Your task to perform on an android device: uninstall "Adobe Acrobat Reader: Edit PDF" Image 0: 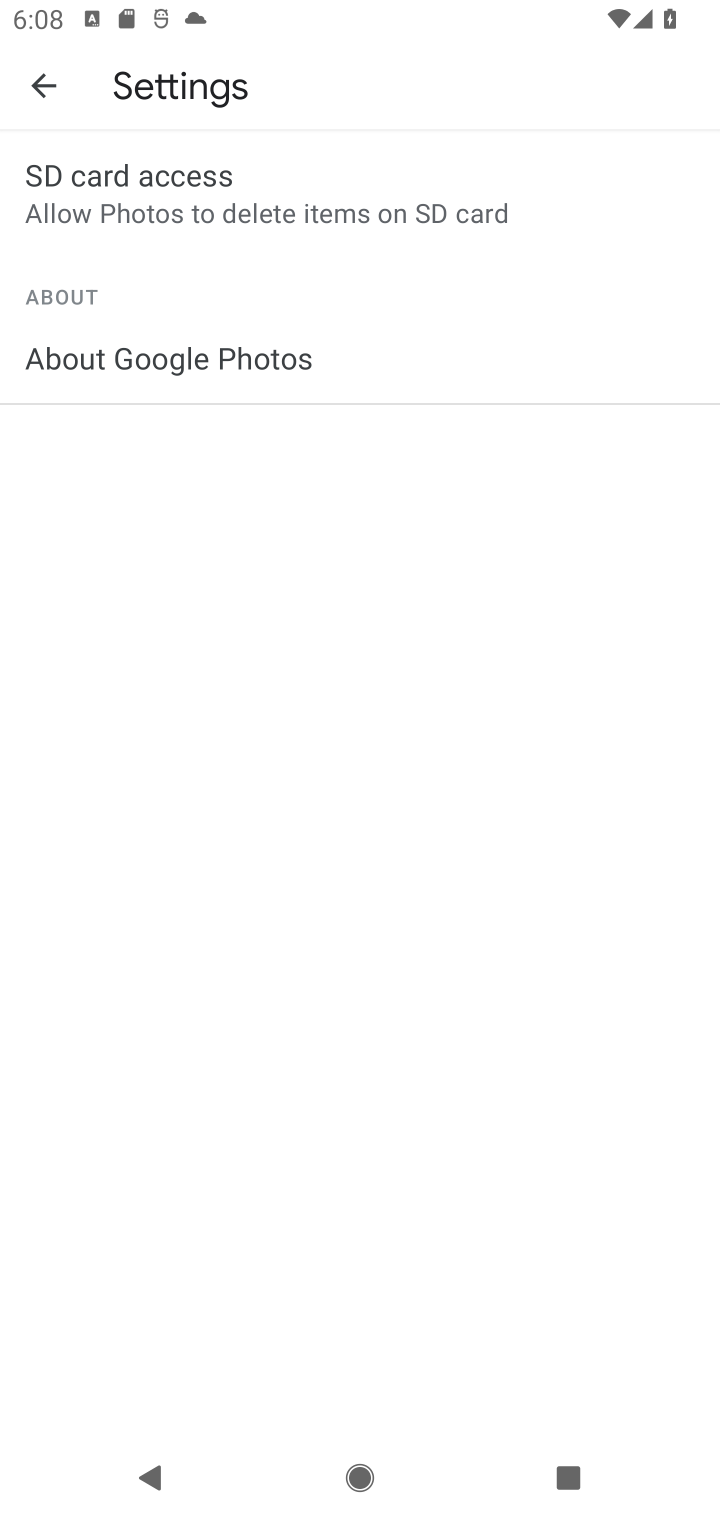
Step 0: press home button
Your task to perform on an android device: uninstall "Adobe Acrobat Reader: Edit PDF" Image 1: 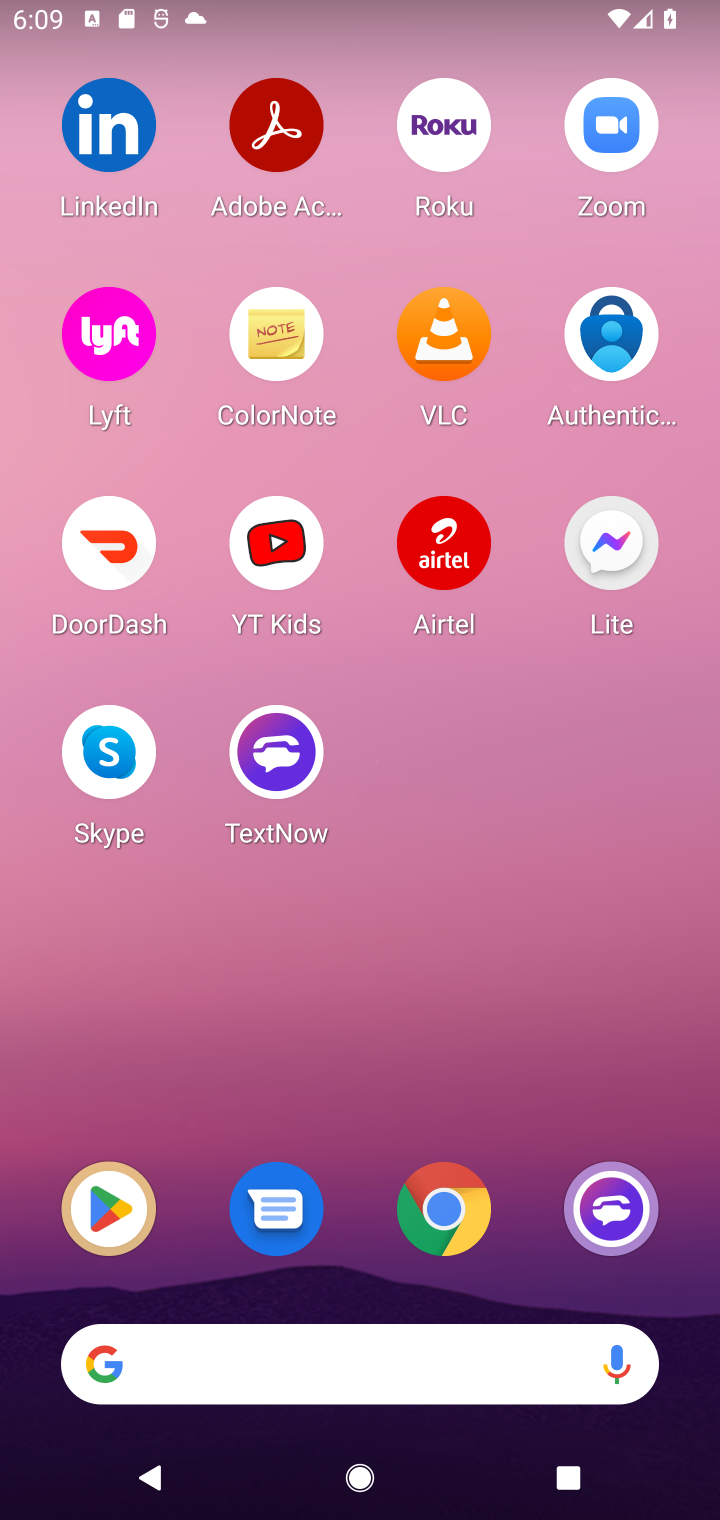
Step 1: click (261, 149)
Your task to perform on an android device: uninstall "Adobe Acrobat Reader: Edit PDF" Image 2: 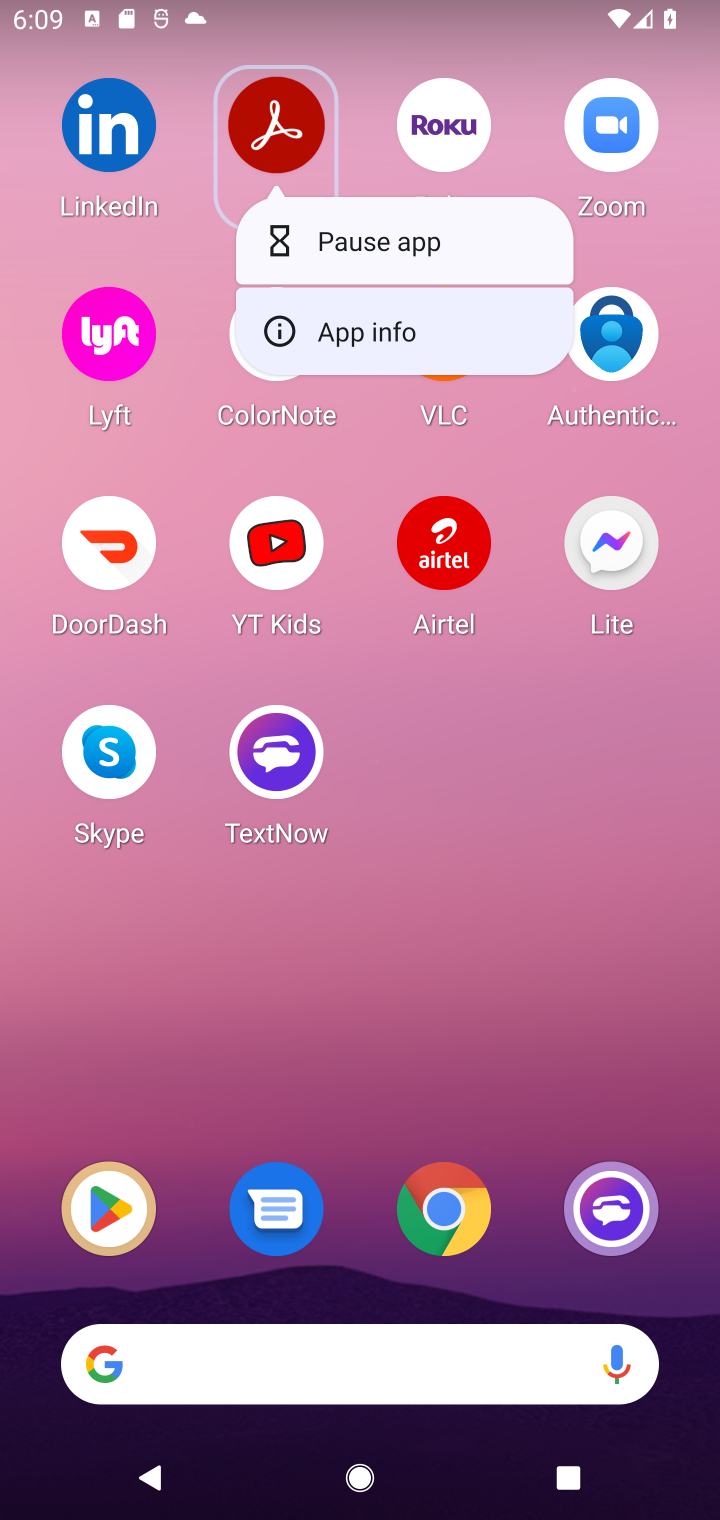
Step 2: click (314, 325)
Your task to perform on an android device: uninstall "Adobe Acrobat Reader: Edit PDF" Image 3: 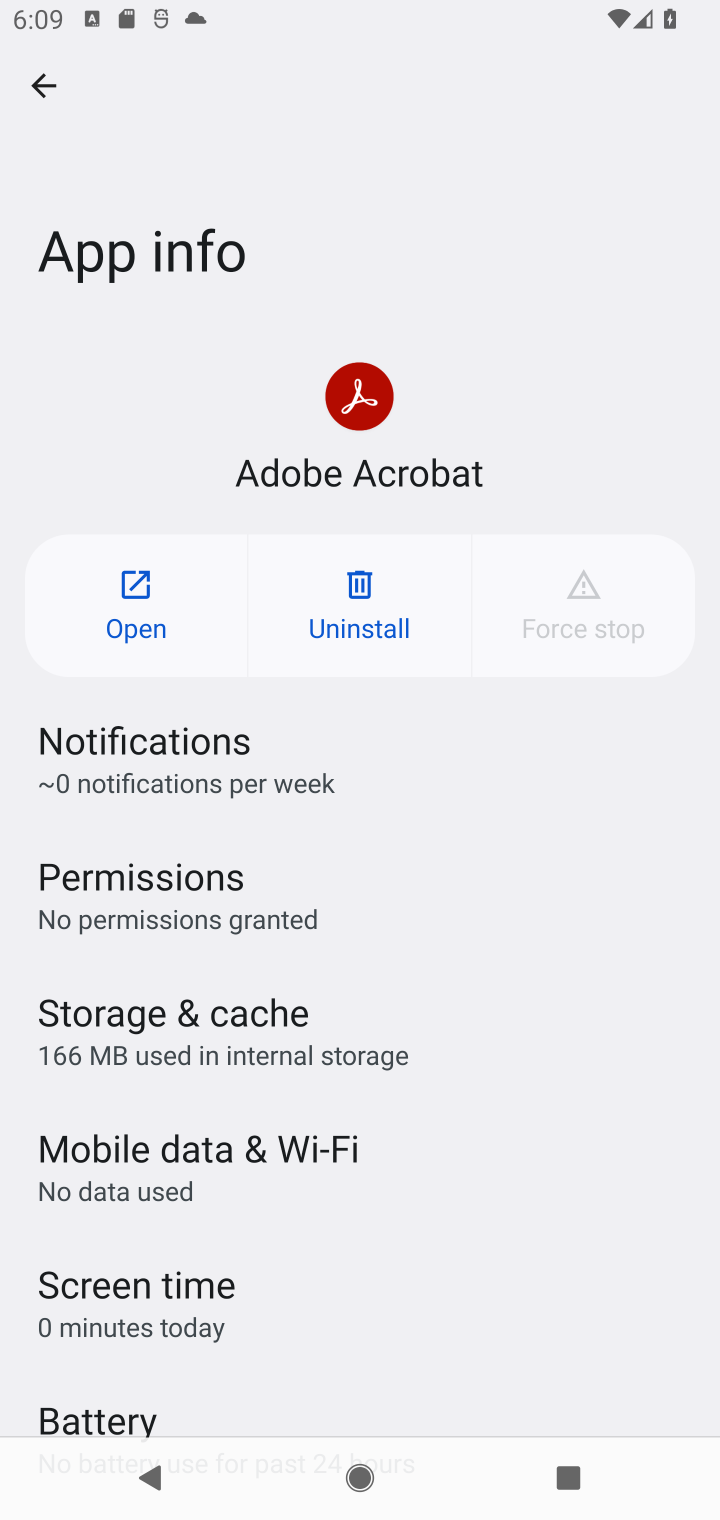
Step 3: click (335, 614)
Your task to perform on an android device: uninstall "Adobe Acrobat Reader: Edit PDF" Image 4: 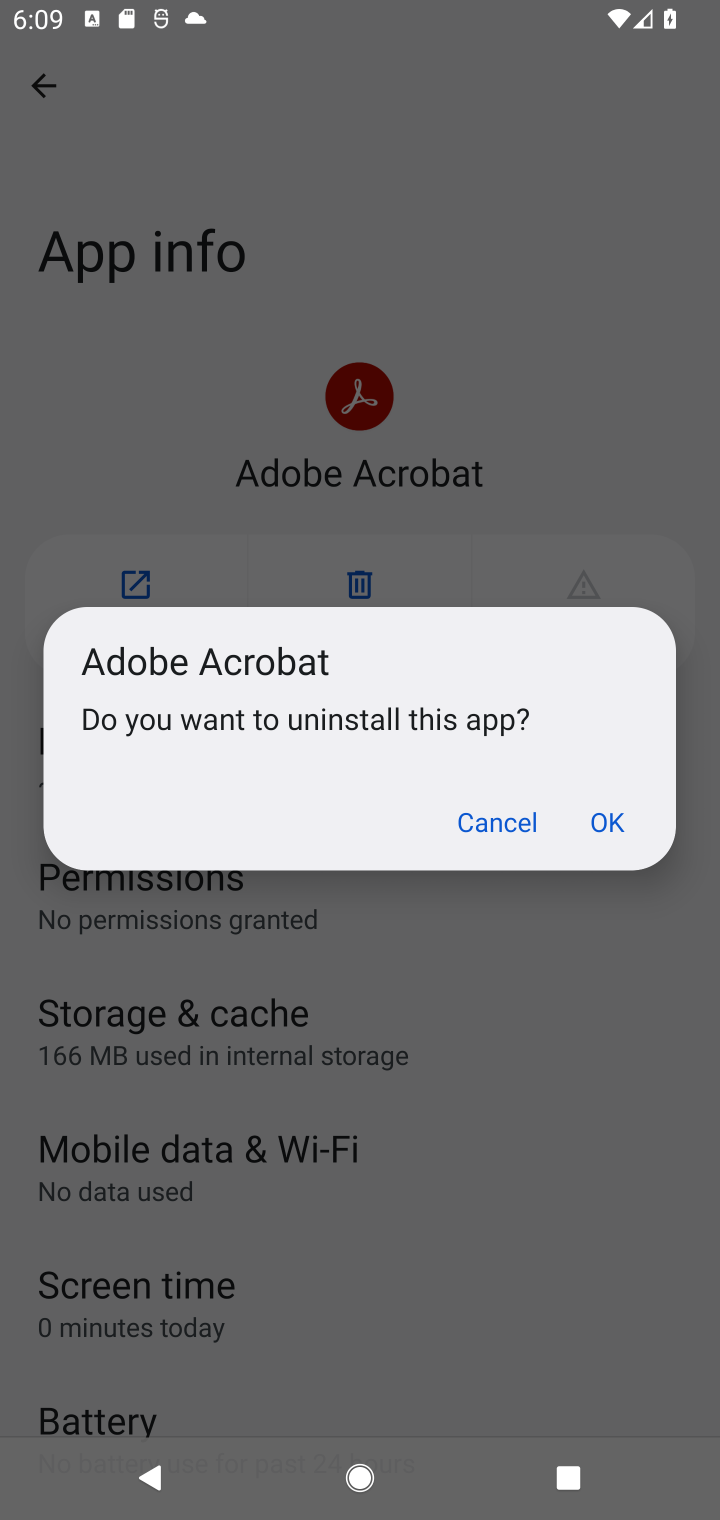
Step 4: click (607, 821)
Your task to perform on an android device: uninstall "Adobe Acrobat Reader: Edit PDF" Image 5: 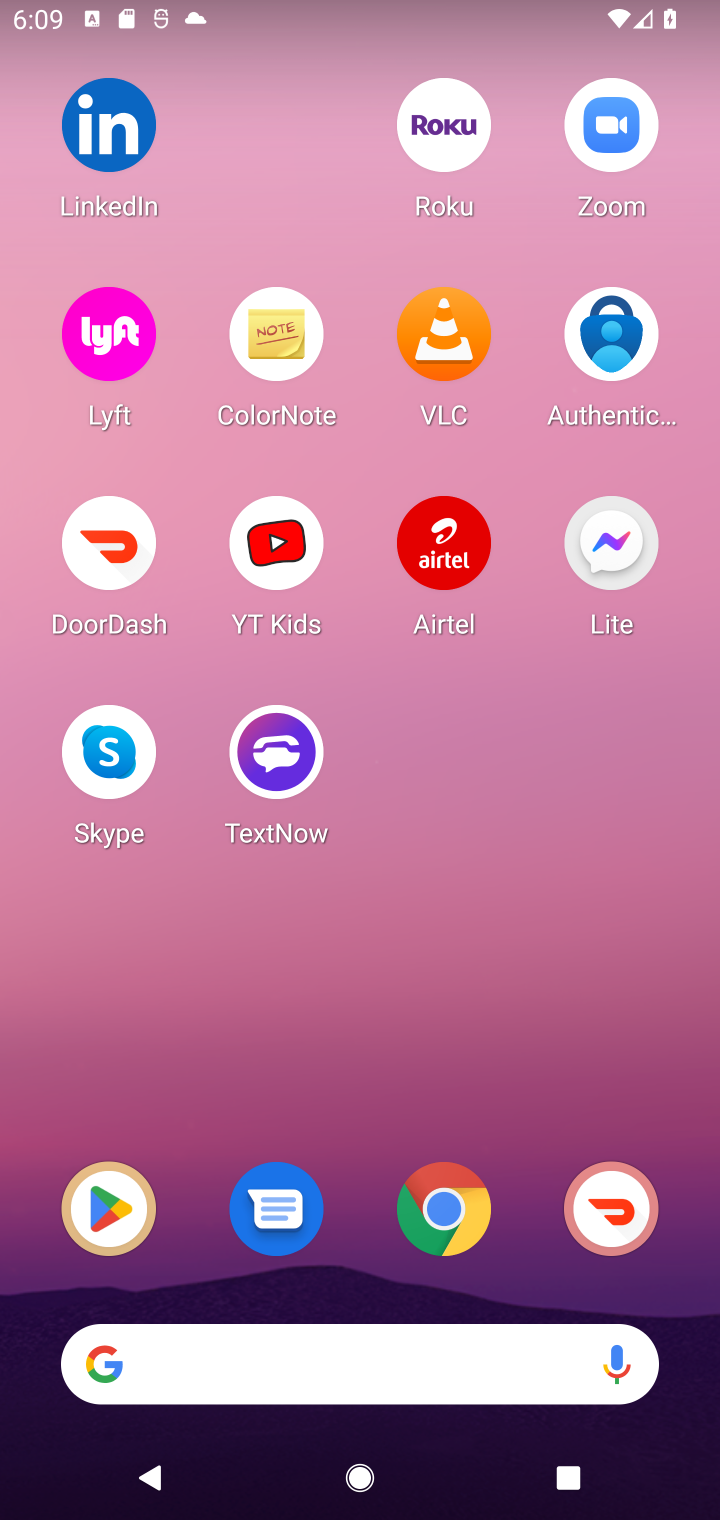
Step 5: task complete